Your task to perform on an android device: Turn on the flashlight Image 0: 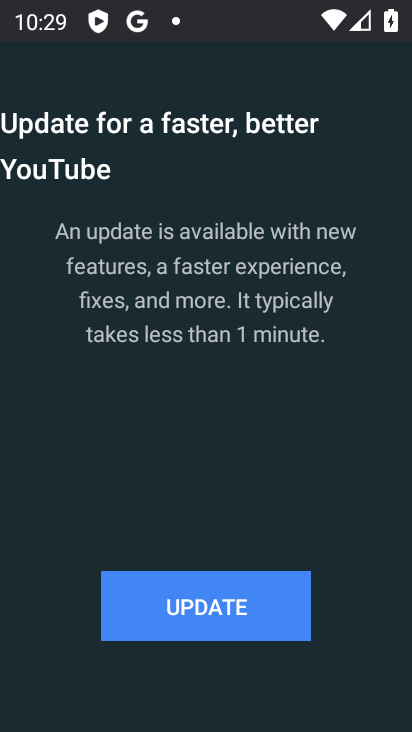
Step 0: drag from (229, 2) to (255, 434)
Your task to perform on an android device: Turn on the flashlight Image 1: 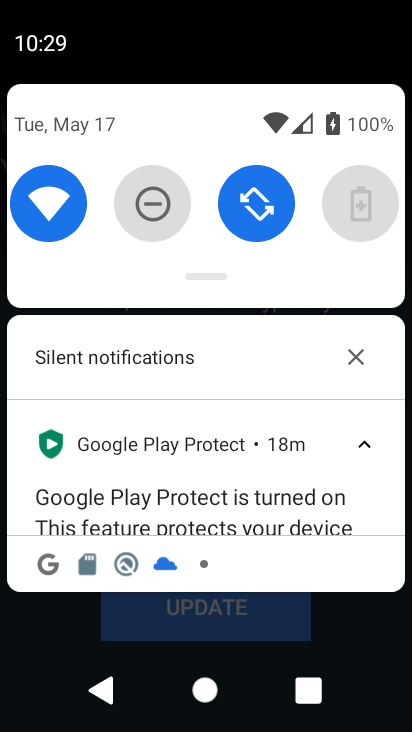
Step 1: task complete